Your task to perform on an android device: change the clock style Image 0: 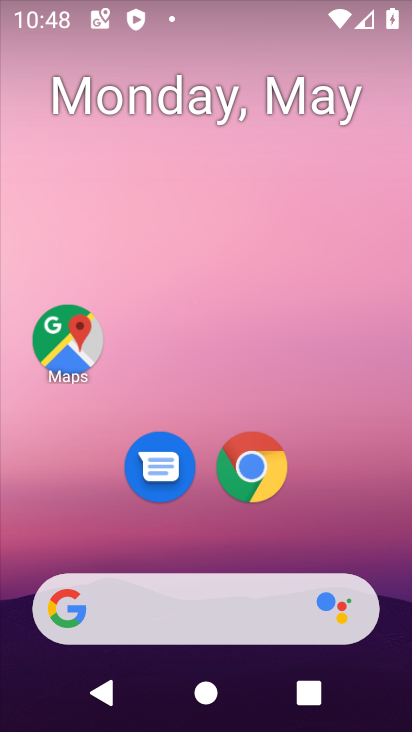
Step 0: drag from (409, 627) to (321, 36)
Your task to perform on an android device: change the clock style Image 1: 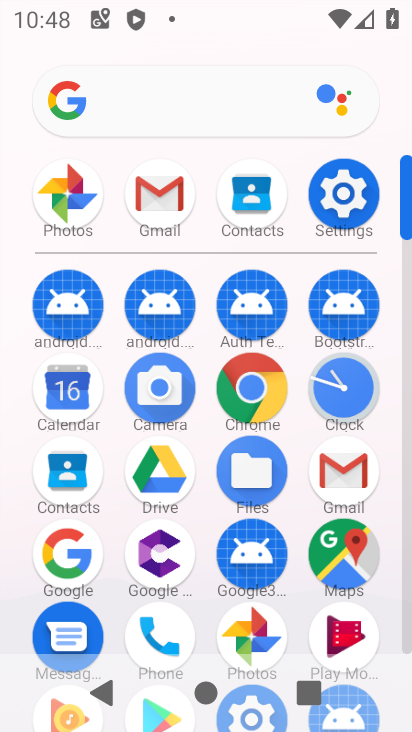
Step 1: click (407, 628)
Your task to perform on an android device: change the clock style Image 2: 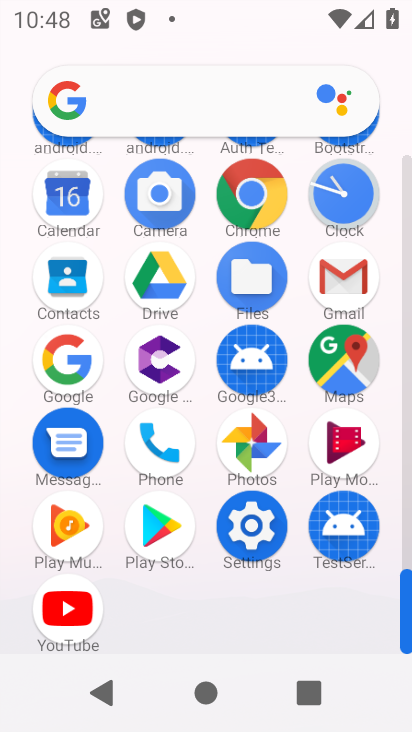
Step 2: click (345, 193)
Your task to perform on an android device: change the clock style Image 3: 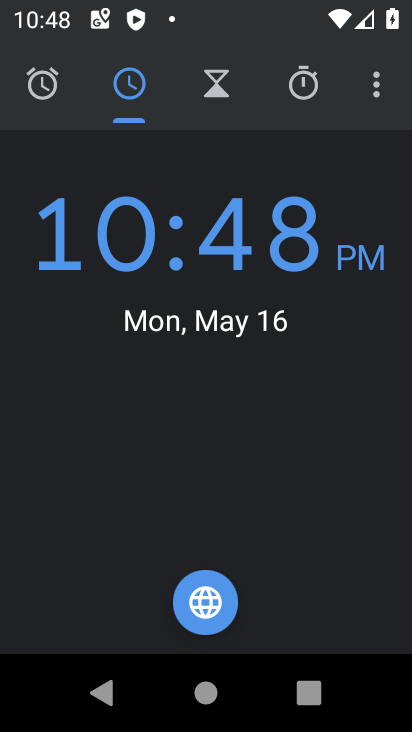
Step 3: click (376, 93)
Your task to perform on an android device: change the clock style Image 4: 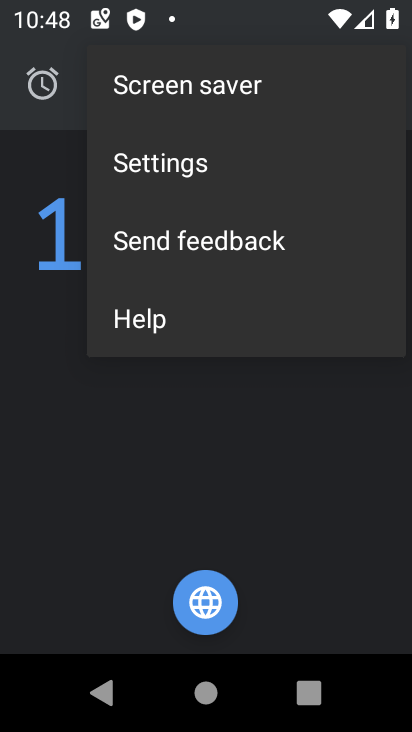
Step 4: click (163, 164)
Your task to perform on an android device: change the clock style Image 5: 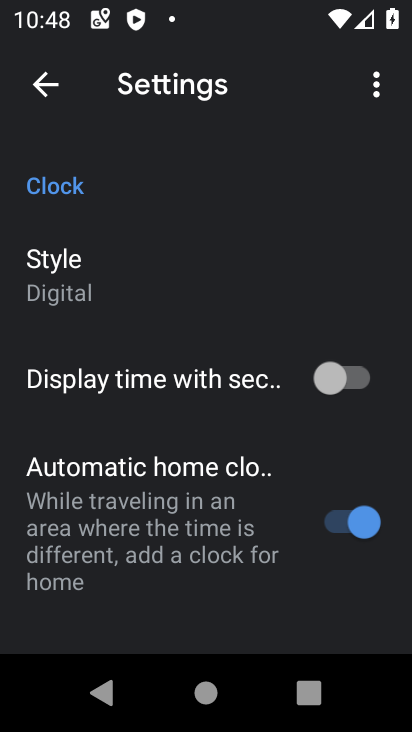
Step 5: click (71, 273)
Your task to perform on an android device: change the clock style Image 6: 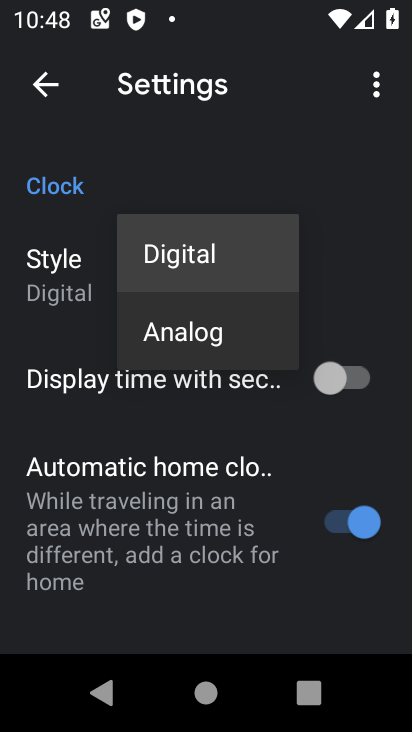
Step 6: click (174, 332)
Your task to perform on an android device: change the clock style Image 7: 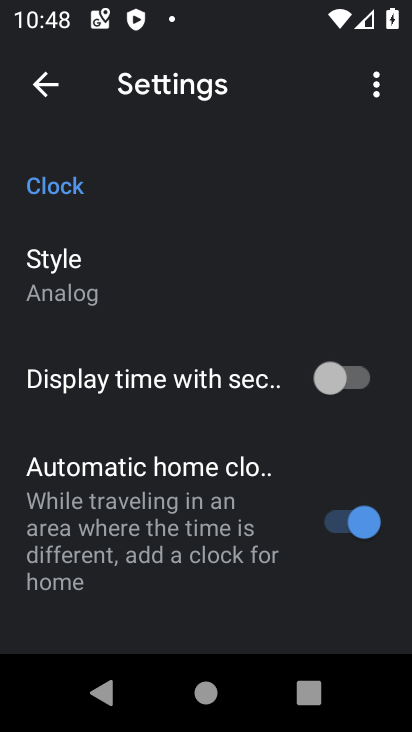
Step 7: task complete